Your task to perform on an android device: Open Chrome and go to settings Image 0: 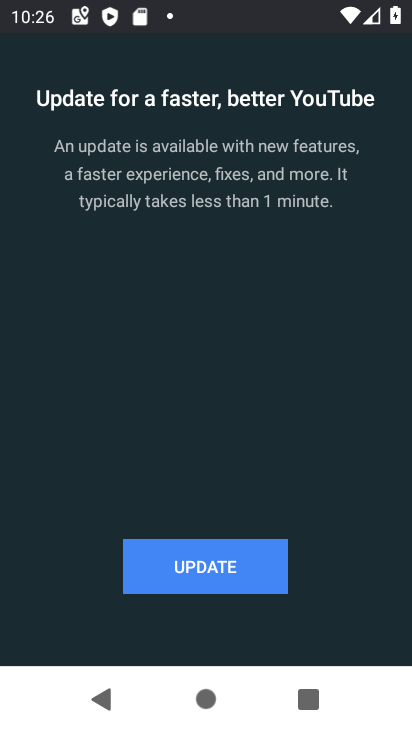
Step 0: press back button
Your task to perform on an android device: Open Chrome and go to settings Image 1: 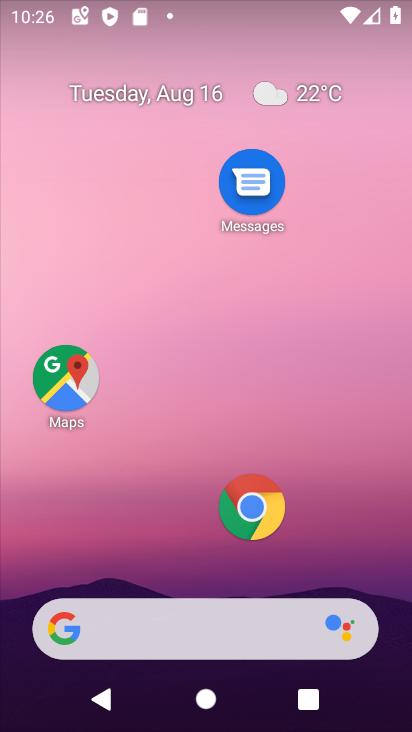
Step 1: click (262, 508)
Your task to perform on an android device: Open Chrome and go to settings Image 2: 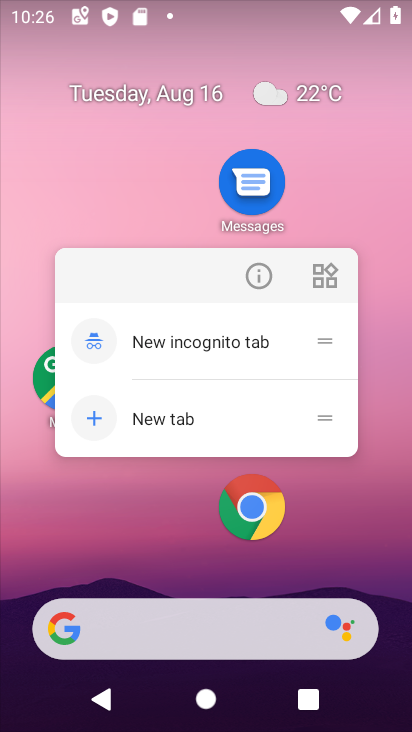
Step 2: click (266, 505)
Your task to perform on an android device: Open Chrome and go to settings Image 3: 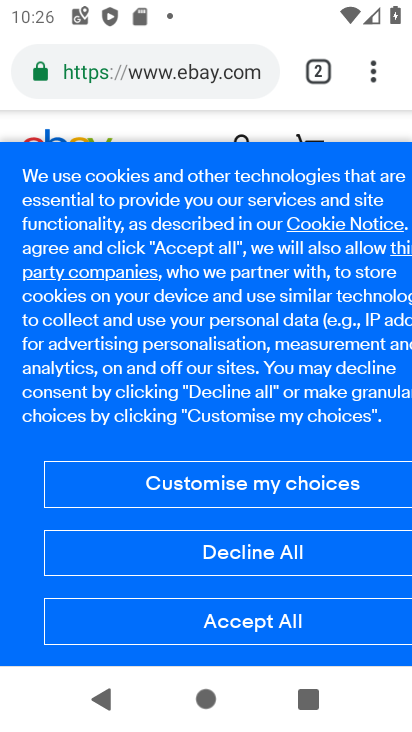
Step 3: task complete